Your task to perform on an android device: turn off picture-in-picture Image 0: 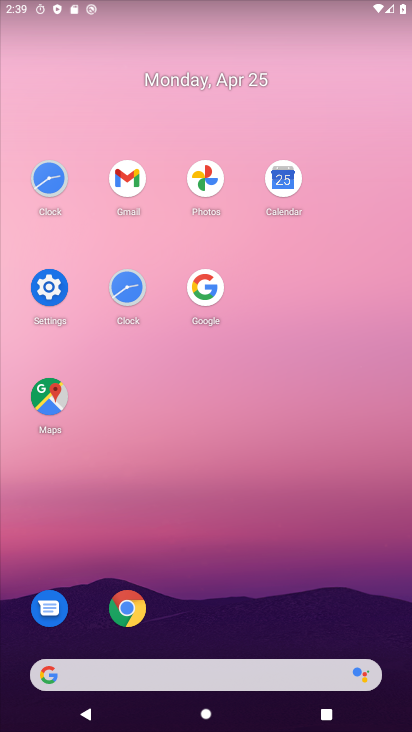
Step 0: click (126, 609)
Your task to perform on an android device: turn off picture-in-picture Image 1: 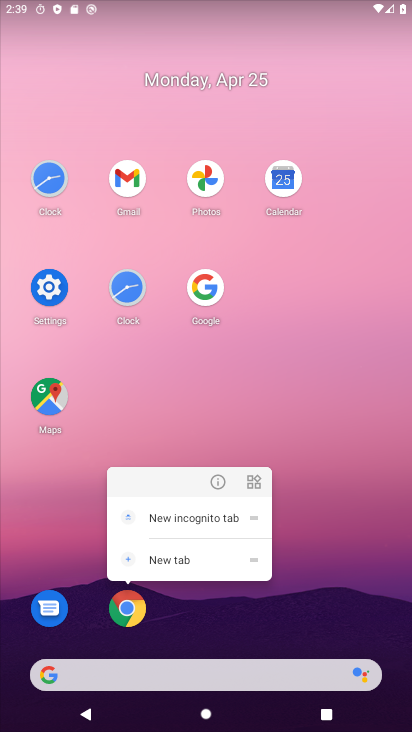
Step 1: click (214, 486)
Your task to perform on an android device: turn off picture-in-picture Image 2: 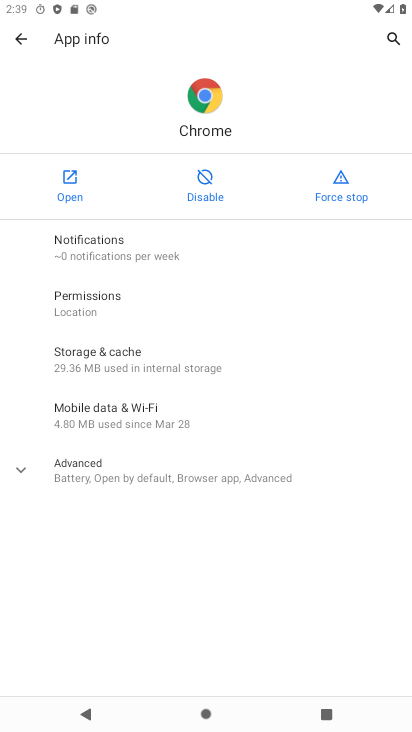
Step 2: click (158, 483)
Your task to perform on an android device: turn off picture-in-picture Image 3: 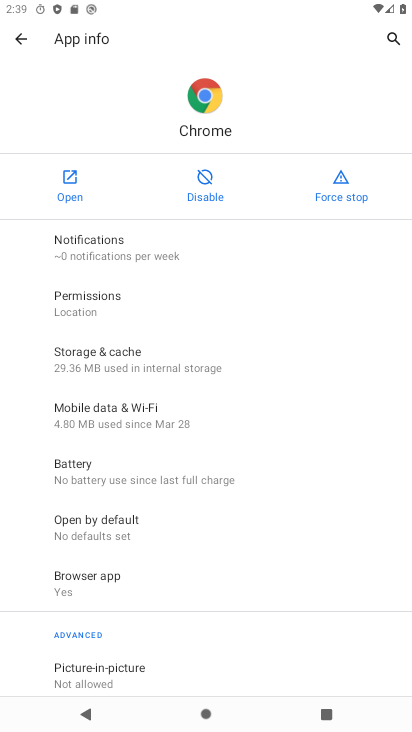
Step 3: task complete